Your task to perform on an android device: Open the calendar and show me this week's events? Image 0: 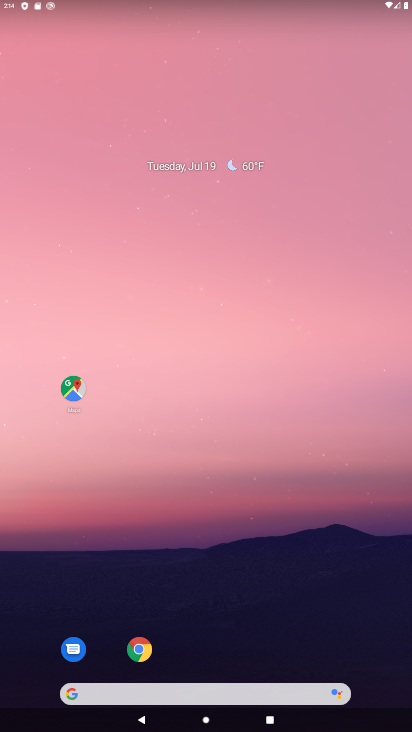
Step 0: drag from (255, 640) to (262, 148)
Your task to perform on an android device: Open the calendar and show me this week's events? Image 1: 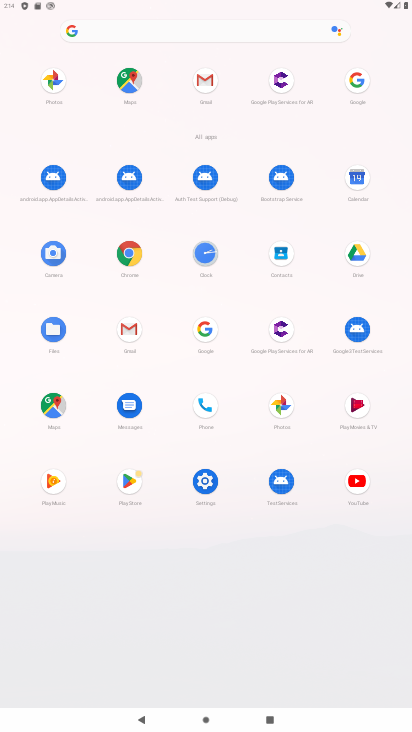
Step 1: click (359, 175)
Your task to perform on an android device: Open the calendar and show me this week's events? Image 2: 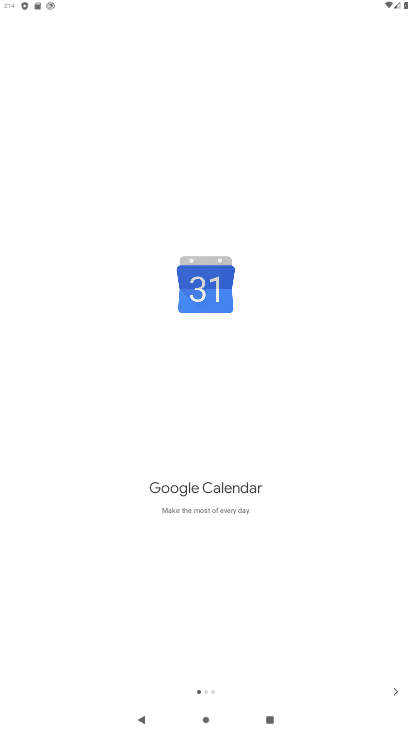
Step 2: click (394, 692)
Your task to perform on an android device: Open the calendar and show me this week's events? Image 3: 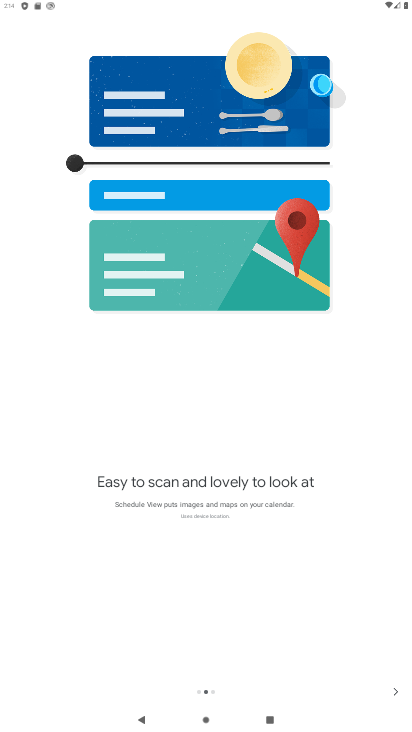
Step 3: click (395, 694)
Your task to perform on an android device: Open the calendar and show me this week's events? Image 4: 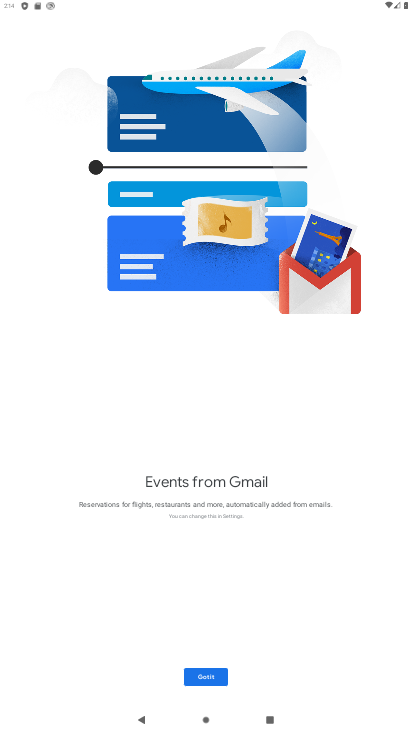
Step 4: click (207, 674)
Your task to perform on an android device: Open the calendar and show me this week's events? Image 5: 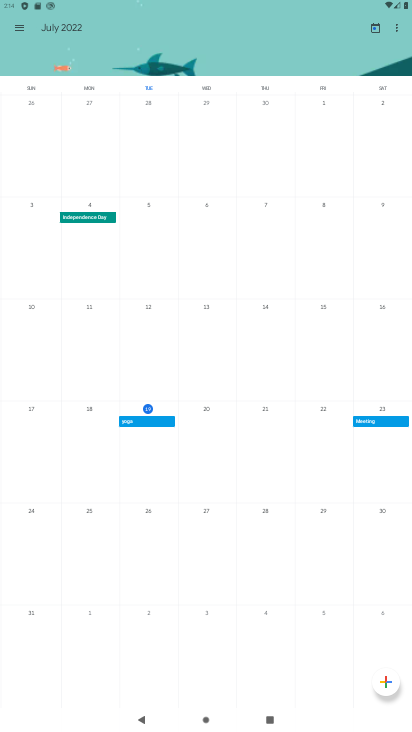
Step 5: click (208, 415)
Your task to perform on an android device: Open the calendar and show me this week's events? Image 6: 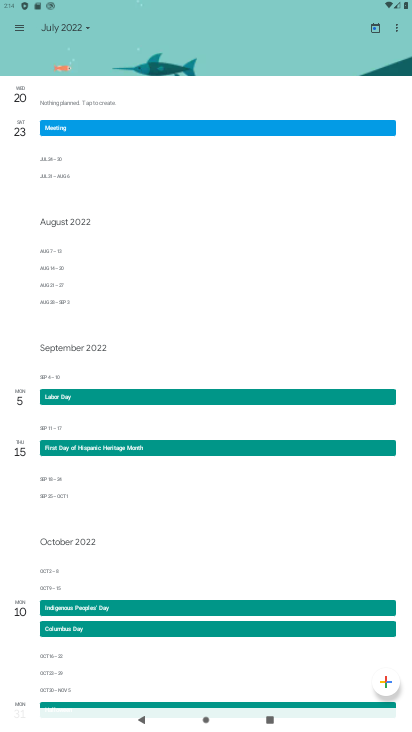
Step 6: task complete